Your task to perform on an android device: Open Chrome and go to settings Image 0: 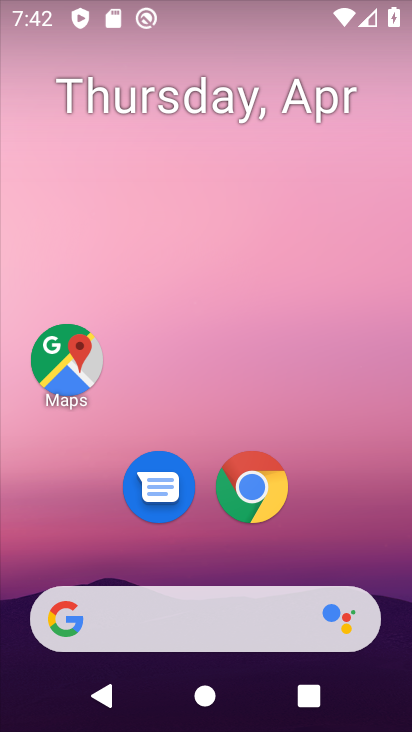
Step 0: click (262, 485)
Your task to perform on an android device: Open Chrome and go to settings Image 1: 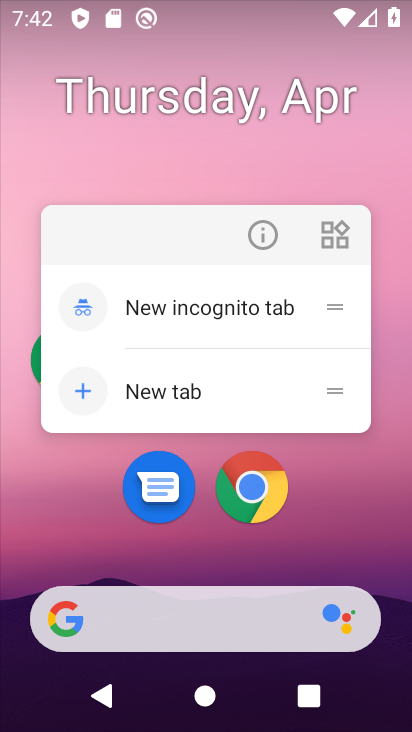
Step 1: click (262, 485)
Your task to perform on an android device: Open Chrome and go to settings Image 2: 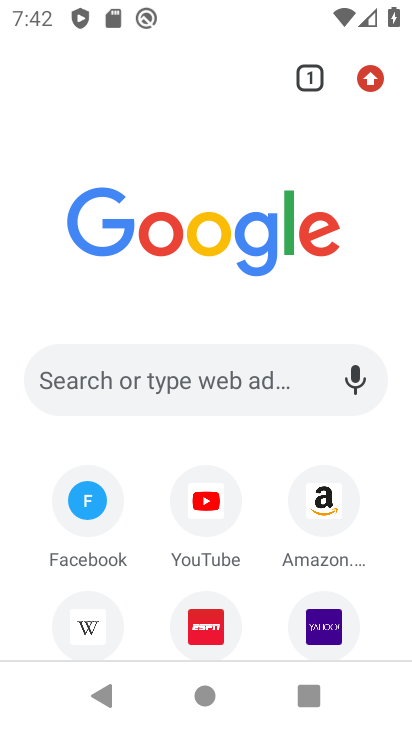
Step 2: click (358, 79)
Your task to perform on an android device: Open Chrome and go to settings Image 3: 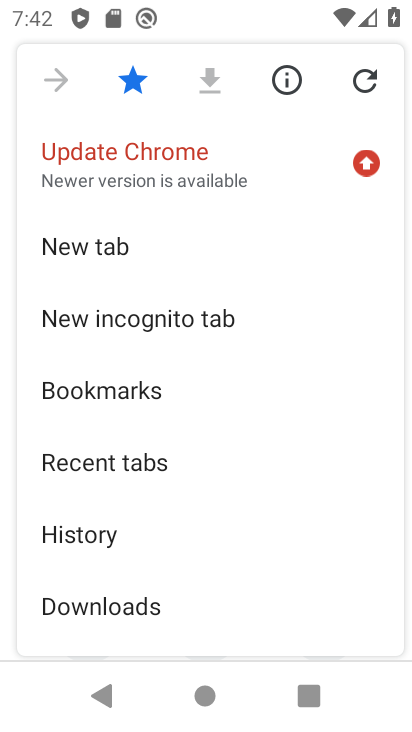
Step 3: drag from (129, 573) to (126, 225)
Your task to perform on an android device: Open Chrome and go to settings Image 4: 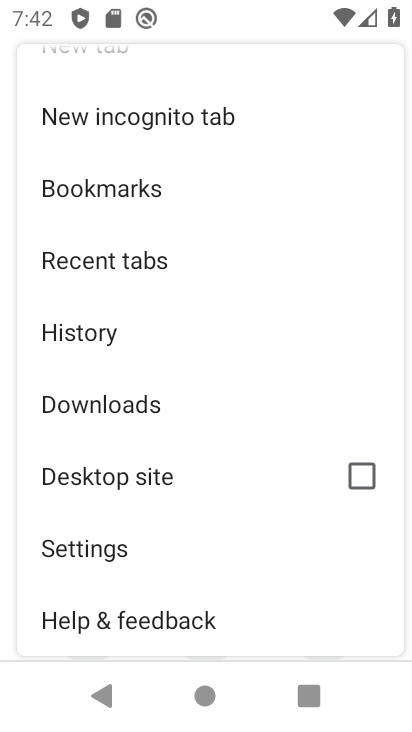
Step 4: click (123, 542)
Your task to perform on an android device: Open Chrome and go to settings Image 5: 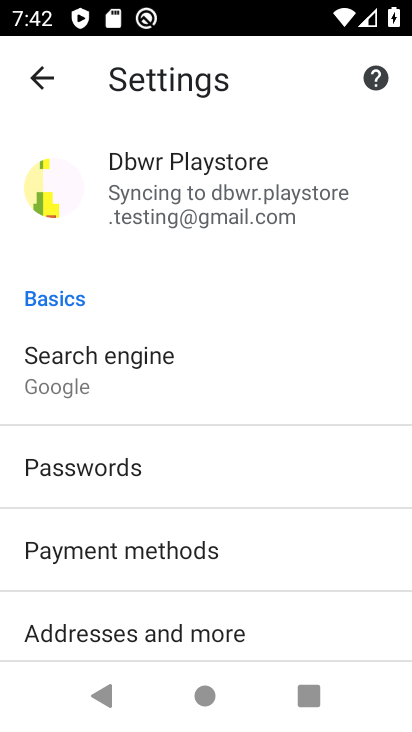
Step 5: task complete